Your task to perform on an android device: set an alarm Image 0: 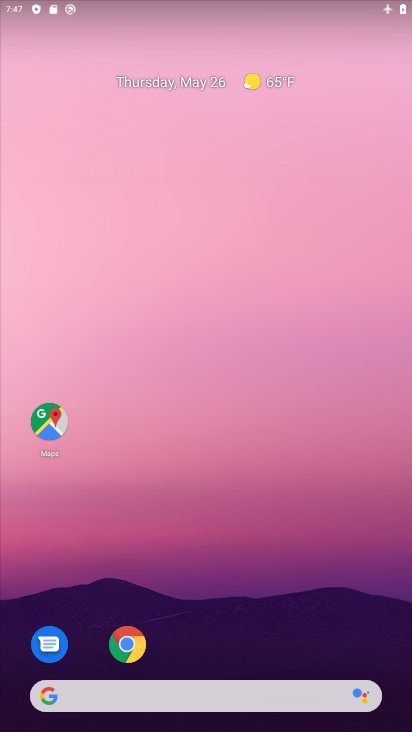
Step 0: drag from (194, 667) to (214, 156)
Your task to perform on an android device: set an alarm Image 1: 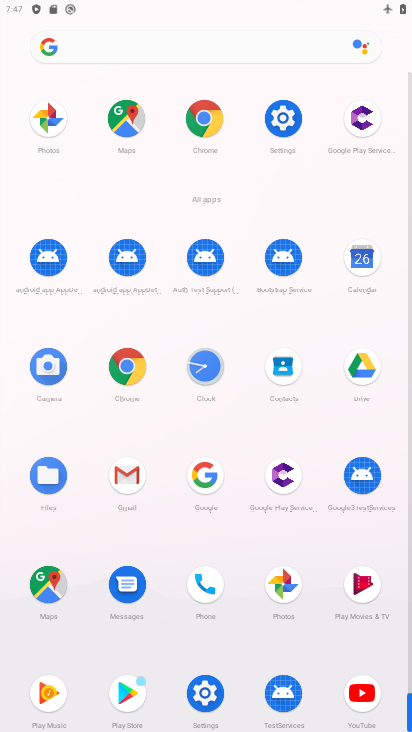
Step 1: click (185, 373)
Your task to perform on an android device: set an alarm Image 2: 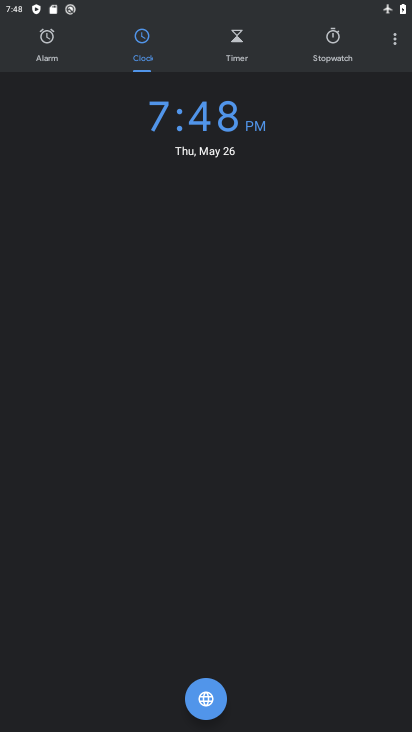
Step 2: click (51, 60)
Your task to perform on an android device: set an alarm Image 3: 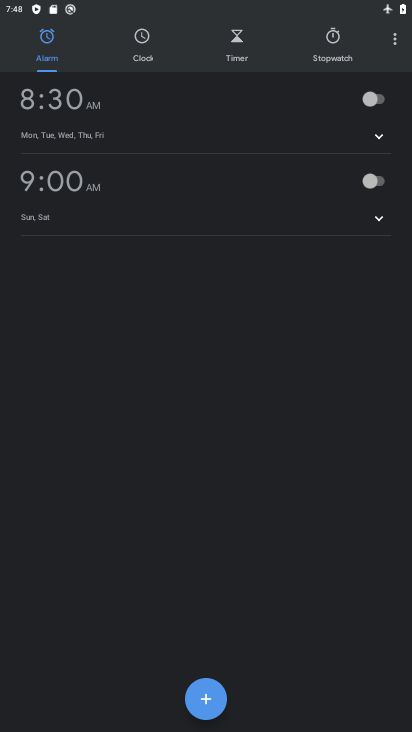
Step 3: click (369, 109)
Your task to perform on an android device: set an alarm Image 4: 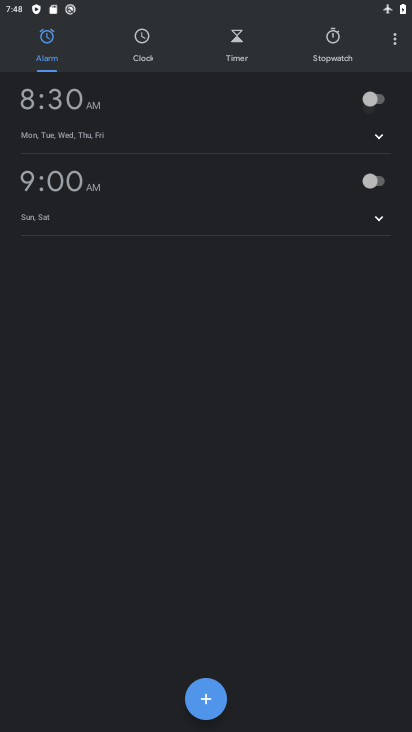
Step 4: task complete